Your task to perform on an android device: star an email in the gmail app Image 0: 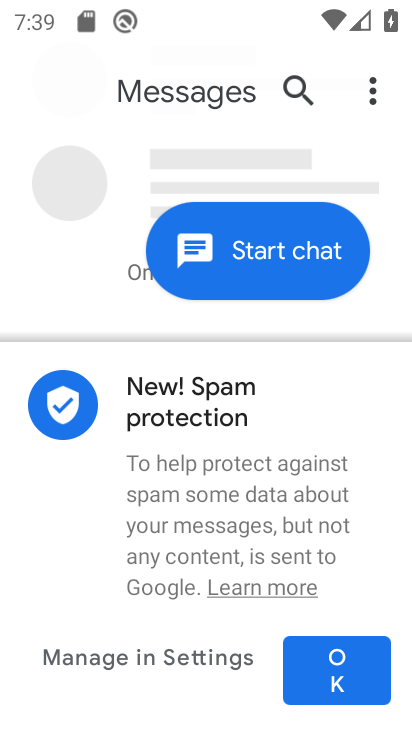
Step 0: press home button
Your task to perform on an android device: star an email in the gmail app Image 1: 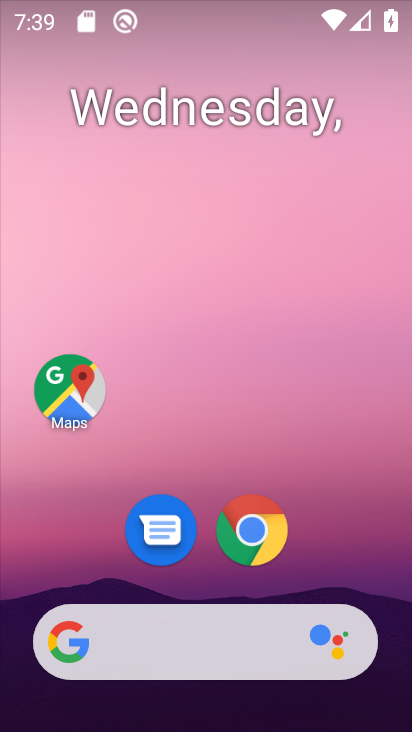
Step 1: drag from (391, 647) to (304, 99)
Your task to perform on an android device: star an email in the gmail app Image 2: 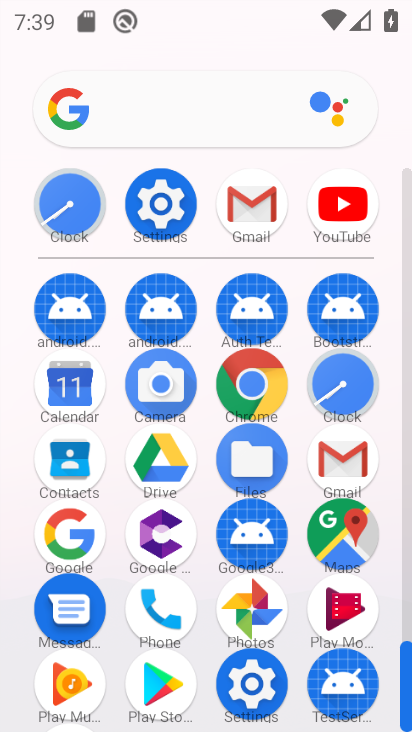
Step 2: click (342, 472)
Your task to perform on an android device: star an email in the gmail app Image 3: 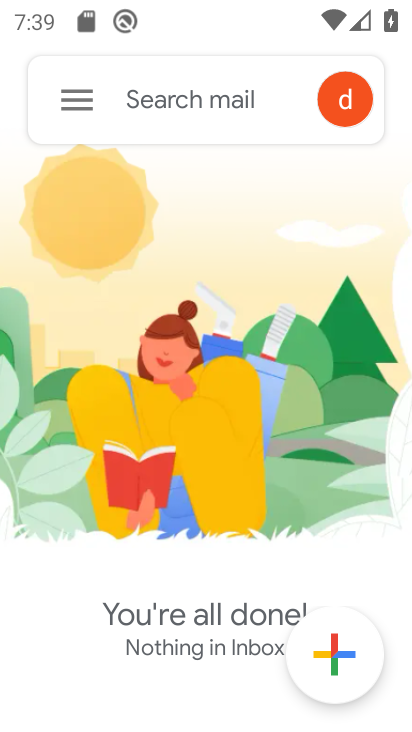
Step 3: click (71, 112)
Your task to perform on an android device: star an email in the gmail app Image 4: 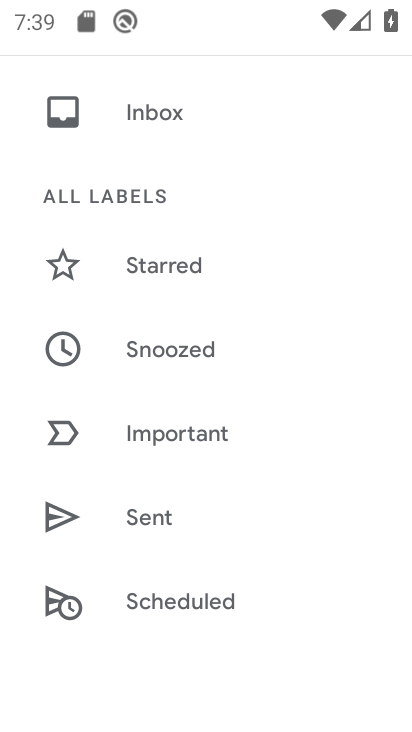
Step 4: click (195, 123)
Your task to perform on an android device: star an email in the gmail app Image 5: 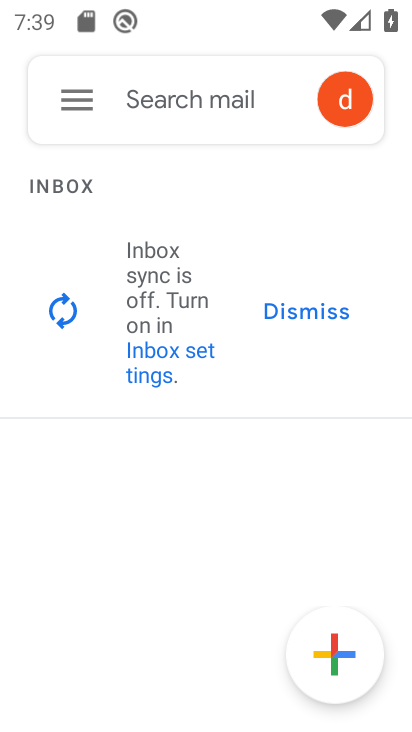
Step 5: task complete